Your task to perform on an android device: empty trash in the gmail app Image 0: 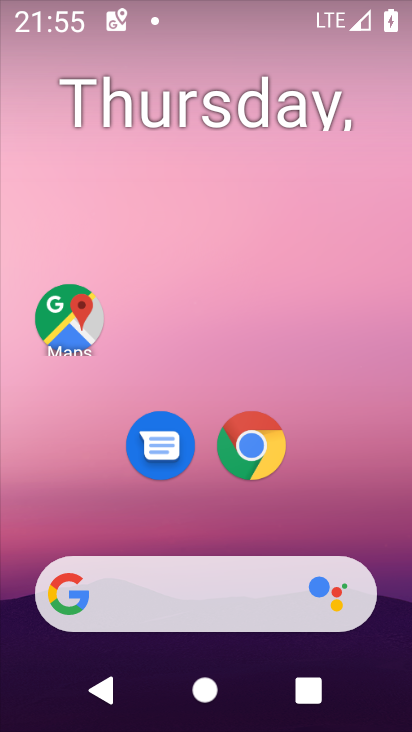
Step 0: drag from (199, 536) to (173, 151)
Your task to perform on an android device: empty trash in the gmail app Image 1: 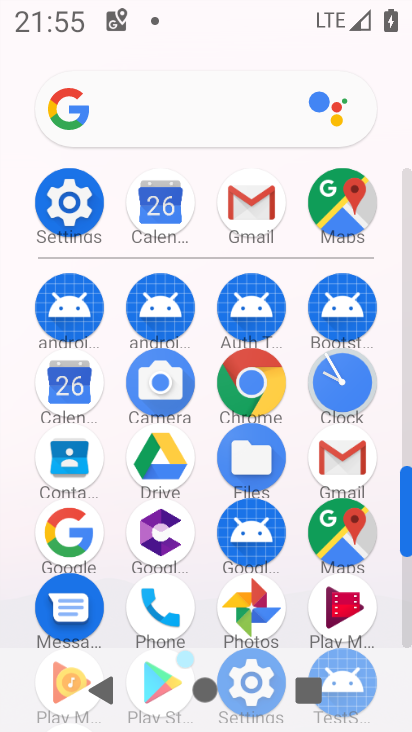
Step 1: click (353, 468)
Your task to perform on an android device: empty trash in the gmail app Image 2: 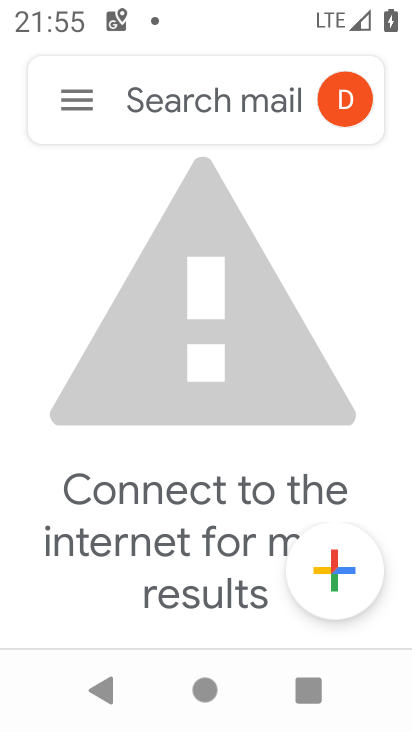
Step 2: click (88, 104)
Your task to perform on an android device: empty trash in the gmail app Image 3: 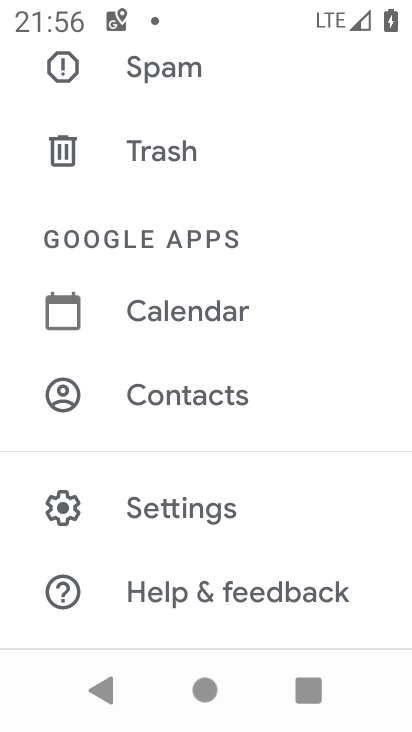
Step 3: click (220, 169)
Your task to perform on an android device: empty trash in the gmail app Image 4: 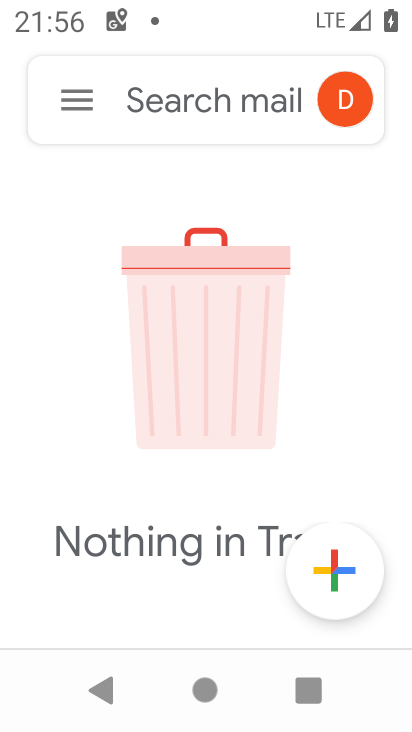
Step 4: task complete